Your task to perform on an android device: clear all cookies in the chrome app Image 0: 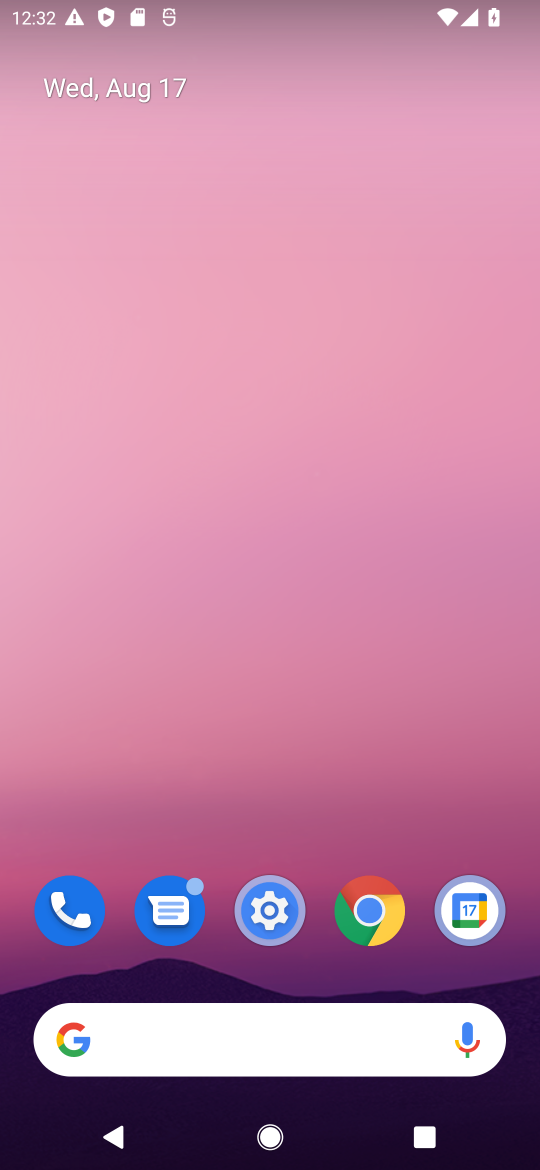
Step 0: click (361, 916)
Your task to perform on an android device: clear all cookies in the chrome app Image 1: 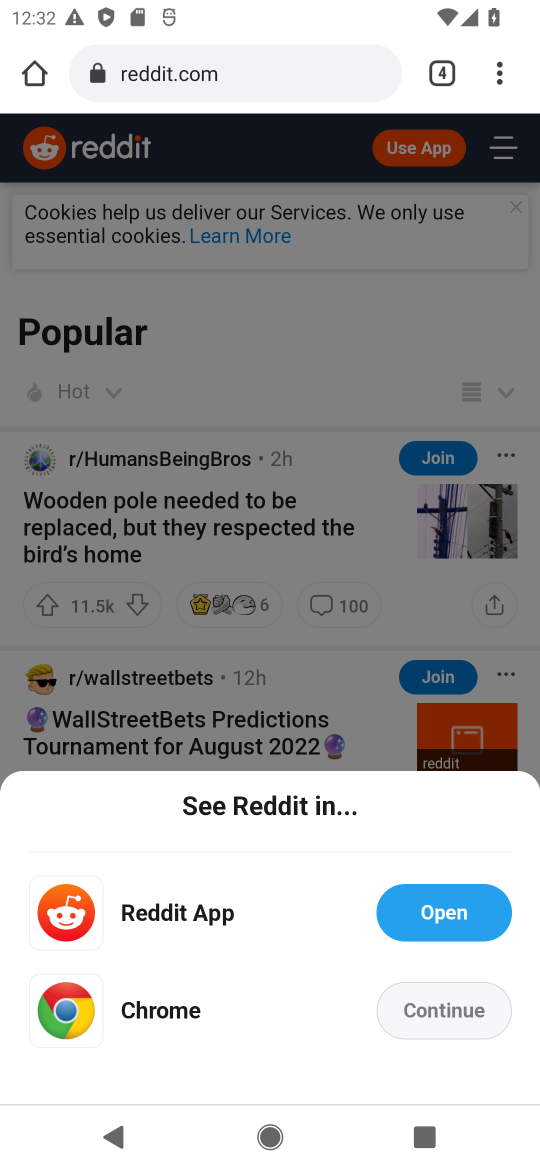
Step 1: drag from (494, 61) to (279, 366)
Your task to perform on an android device: clear all cookies in the chrome app Image 2: 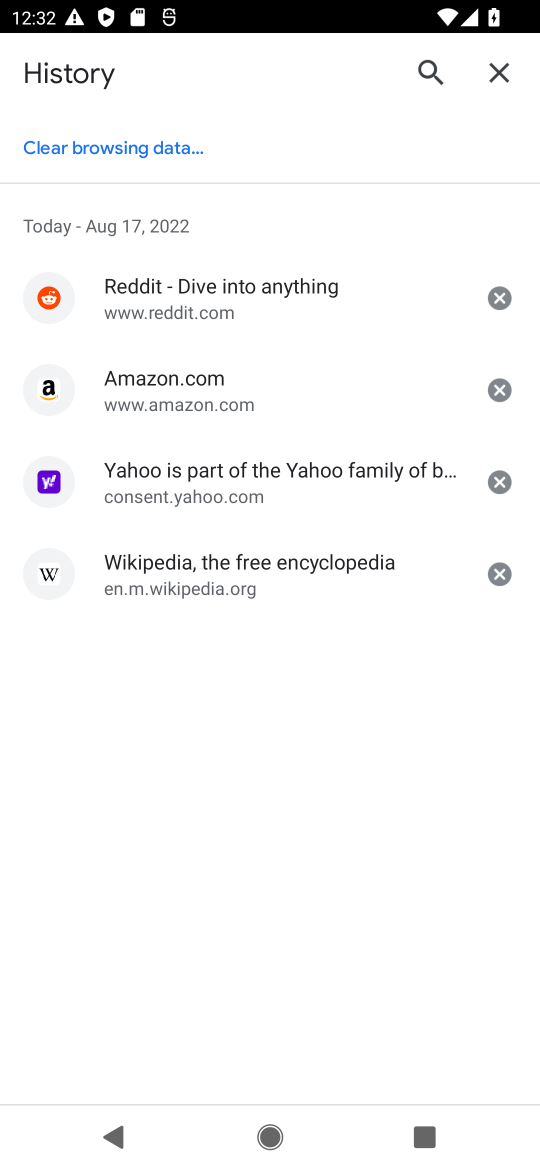
Step 2: click (85, 122)
Your task to perform on an android device: clear all cookies in the chrome app Image 3: 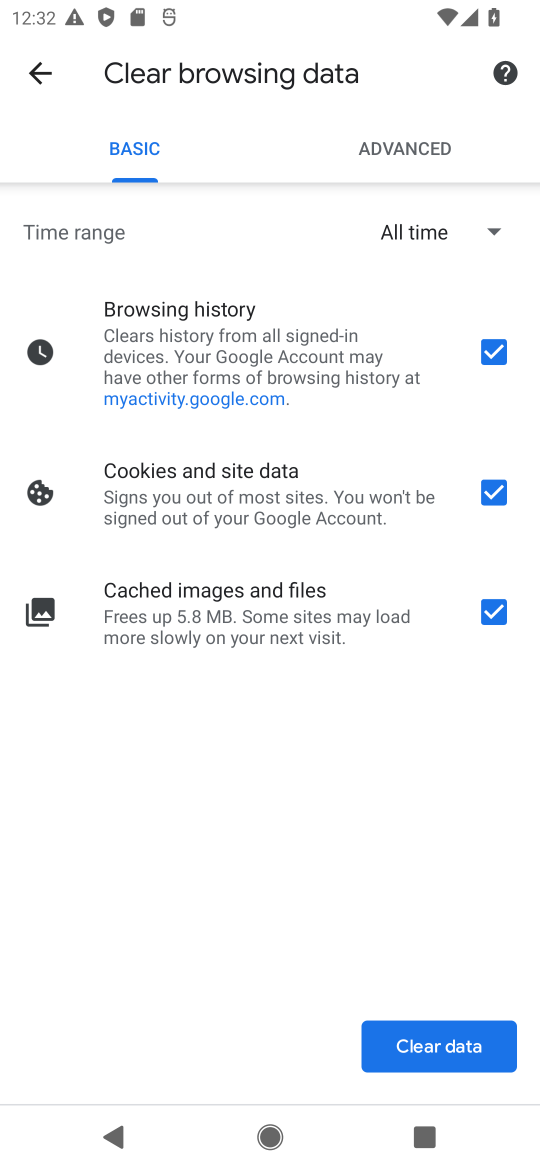
Step 3: click (490, 338)
Your task to perform on an android device: clear all cookies in the chrome app Image 4: 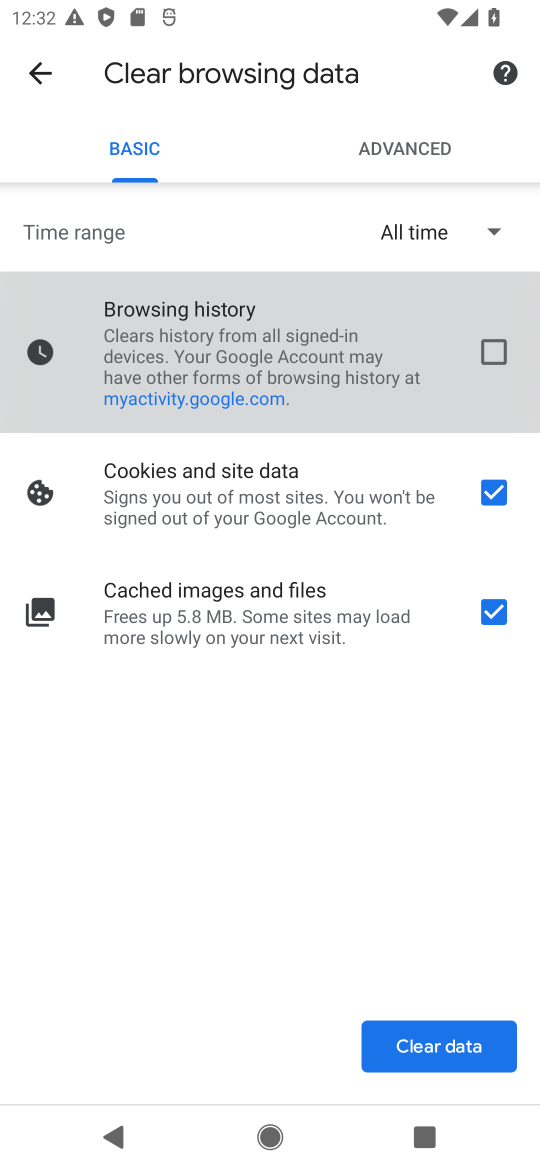
Step 4: click (499, 609)
Your task to perform on an android device: clear all cookies in the chrome app Image 5: 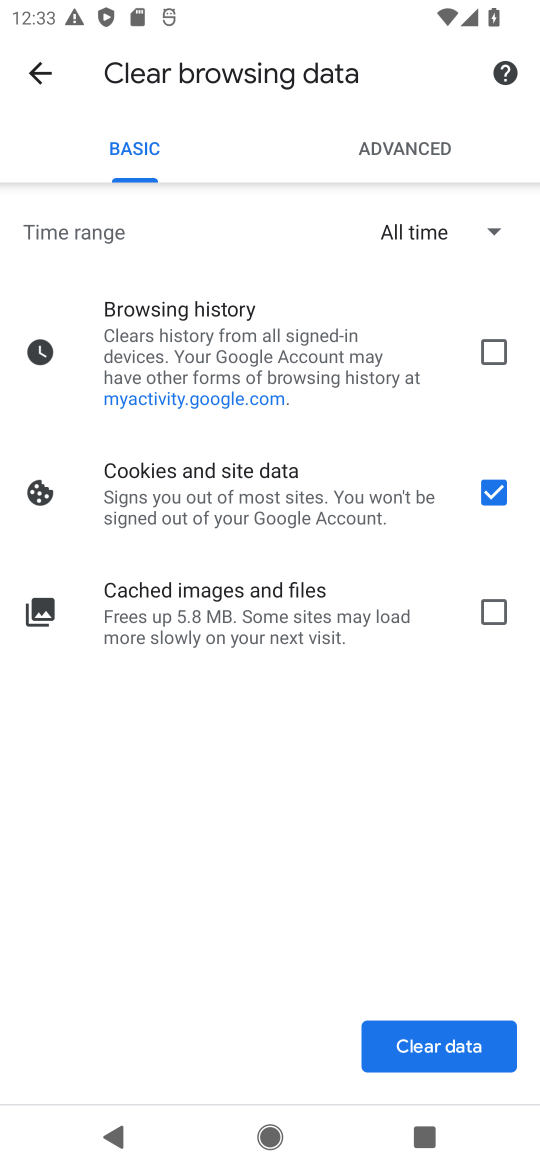
Step 5: click (448, 1043)
Your task to perform on an android device: clear all cookies in the chrome app Image 6: 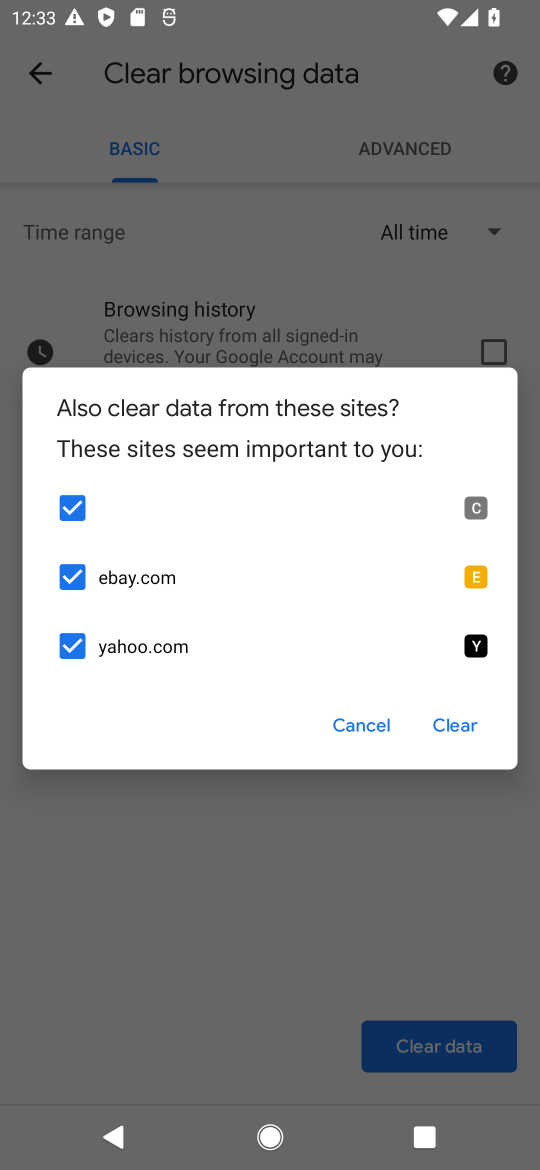
Step 6: click (459, 727)
Your task to perform on an android device: clear all cookies in the chrome app Image 7: 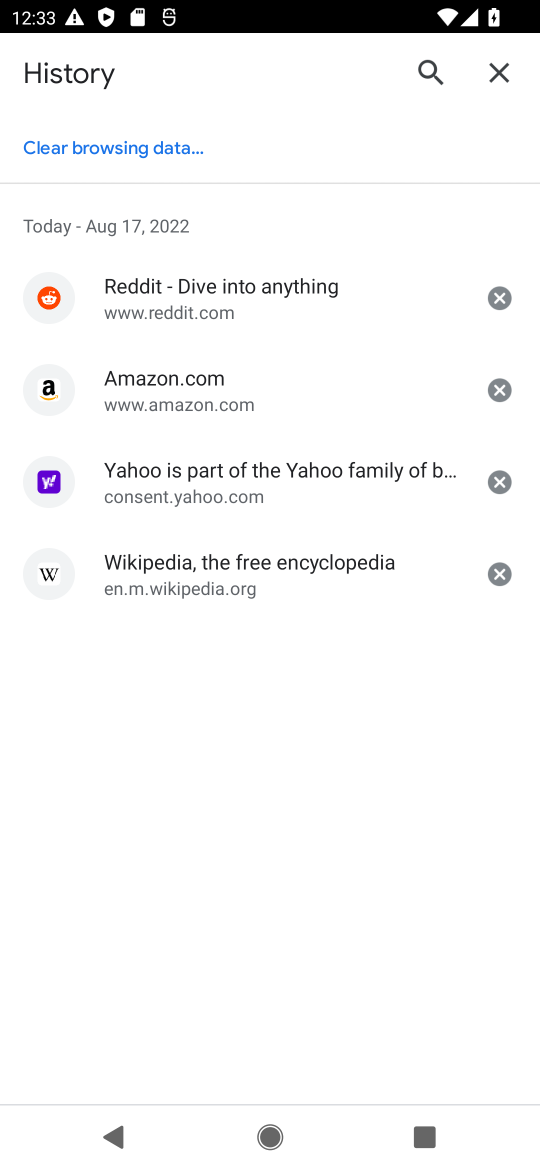
Step 7: task complete